Your task to perform on an android device: check android version Image 0: 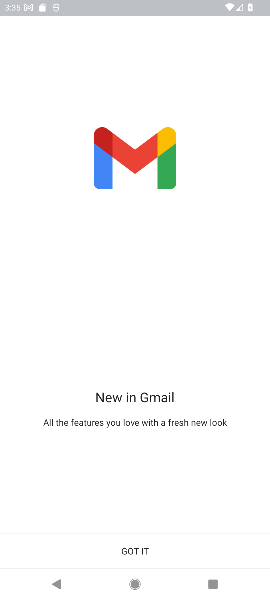
Step 0: click (128, 547)
Your task to perform on an android device: check android version Image 1: 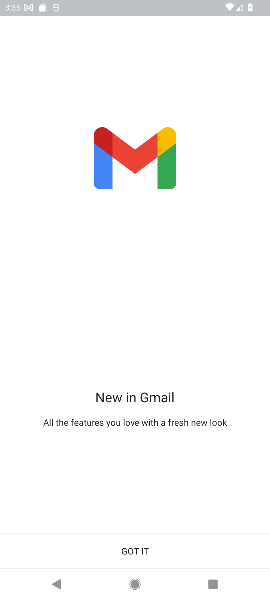
Step 1: click (128, 547)
Your task to perform on an android device: check android version Image 2: 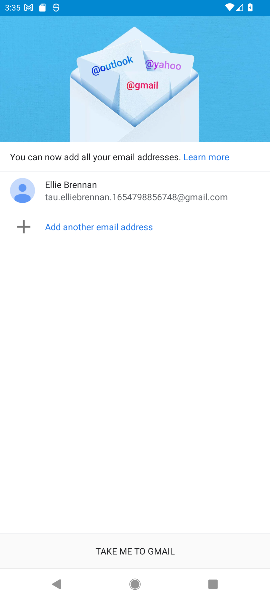
Step 2: press home button
Your task to perform on an android device: check android version Image 3: 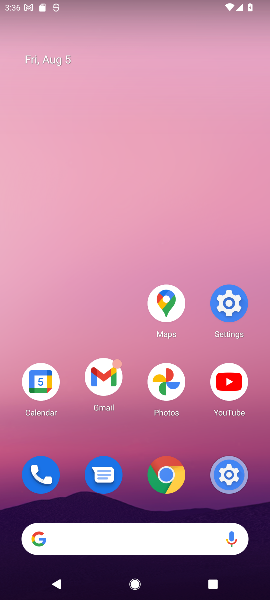
Step 3: click (223, 305)
Your task to perform on an android device: check android version Image 4: 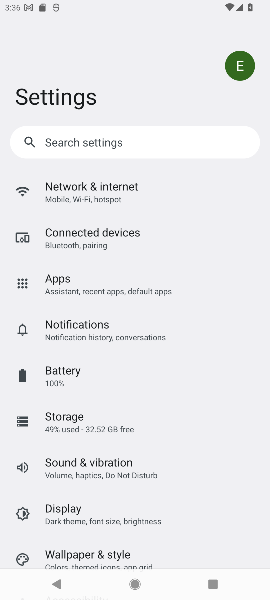
Step 4: drag from (194, 549) to (194, 219)
Your task to perform on an android device: check android version Image 5: 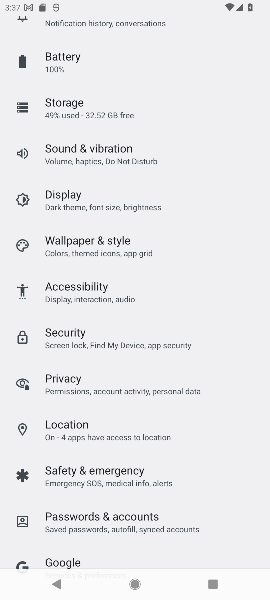
Step 5: drag from (155, 539) to (138, 165)
Your task to perform on an android device: check android version Image 6: 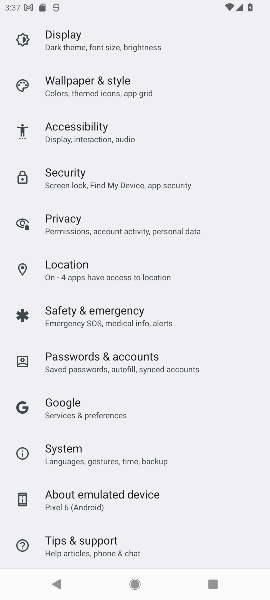
Step 6: click (69, 500)
Your task to perform on an android device: check android version Image 7: 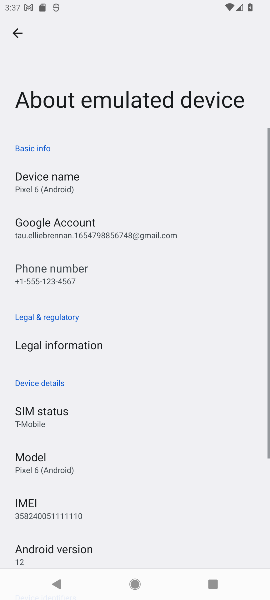
Step 7: click (59, 546)
Your task to perform on an android device: check android version Image 8: 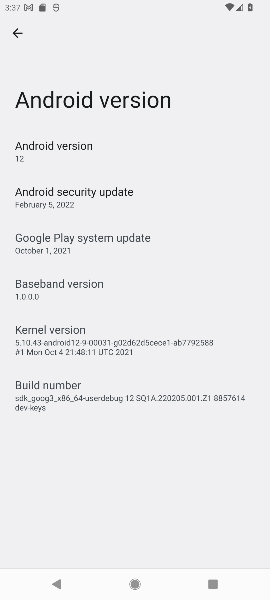
Step 8: click (32, 153)
Your task to perform on an android device: check android version Image 9: 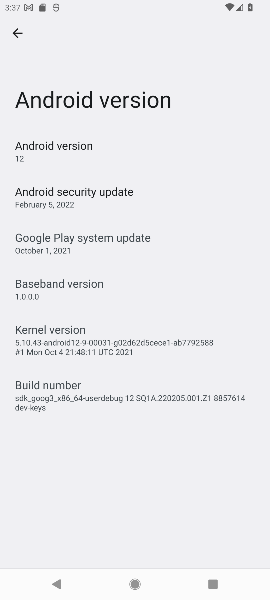
Step 9: task complete